Your task to perform on an android device: Open the calendar app, open the side menu, and click the "Day" option Image 0: 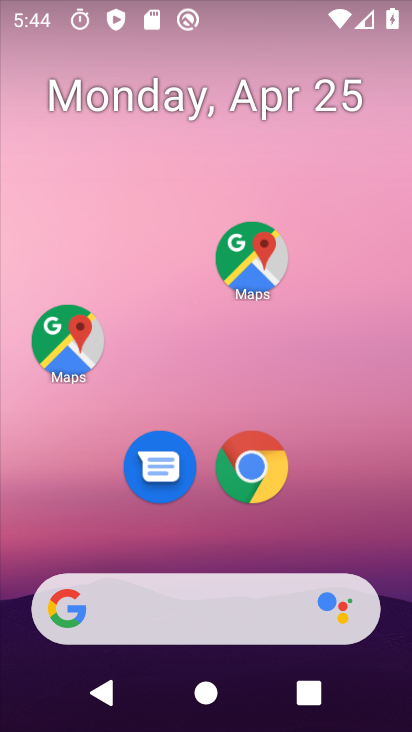
Step 0: drag from (223, 545) to (209, 2)
Your task to perform on an android device: Open the calendar app, open the side menu, and click the "Day" option Image 1: 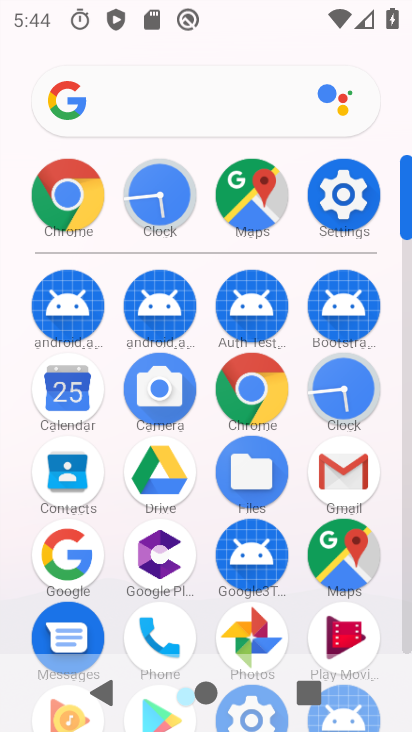
Step 1: click (67, 411)
Your task to perform on an android device: Open the calendar app, open the side menu, and click the "Day" option Image 2: 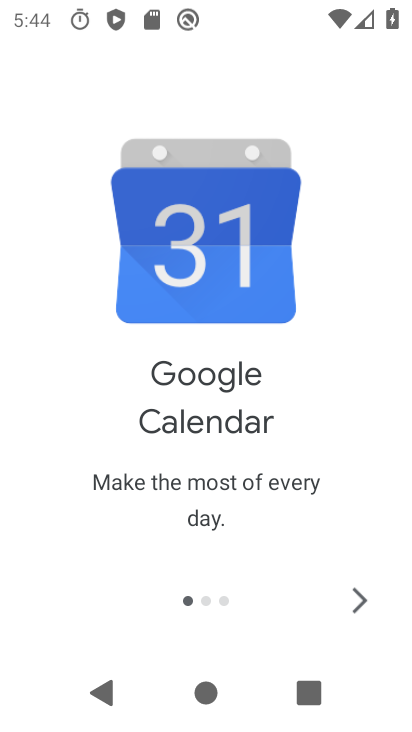
Step 2: click (353, 588)
Your task to perform on an android device: Open the calendar app, open the side menu, and click the "Day" option Image 3: 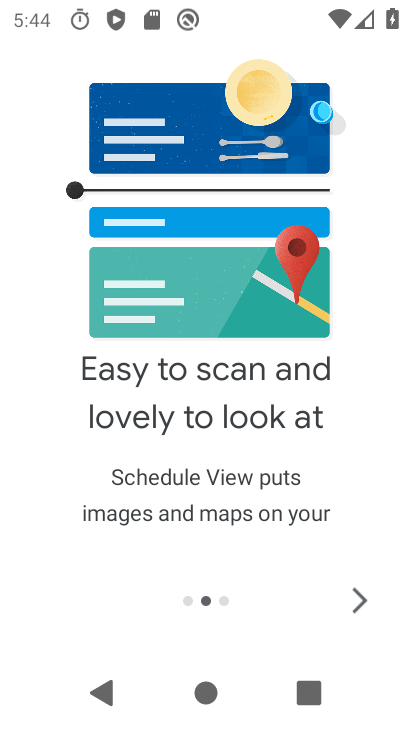
Step 3: click (355, 595)
Your task to perform on an android device: Open the calendar app, open the side menu, and click the "Day" option Image 4: 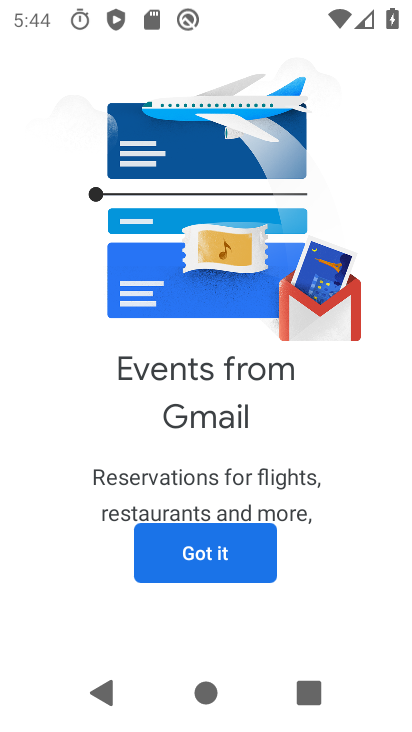
Step 4: click (230, 571)
Your task to perform on an android device: Open the calendar app, open the side menu, and click the "Day" option Image 5: 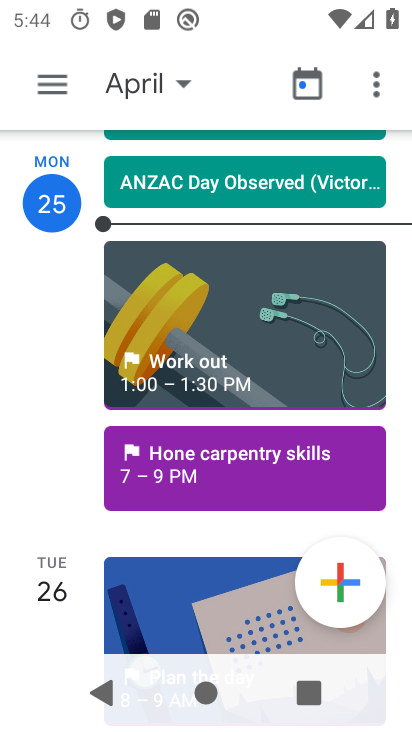
Step 5: click (54, 74)
Your task to perform on an android device: Open the calendar app, open the side menu, and click the "Day" option Image 6: 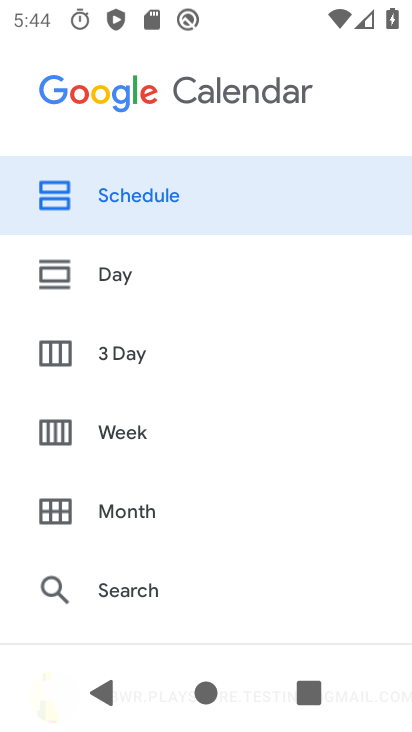
Step 6: click (127, 279)
Your task to perform on an android device: Open the calendar app, open the side menu, and click the "Day" option Image 7: 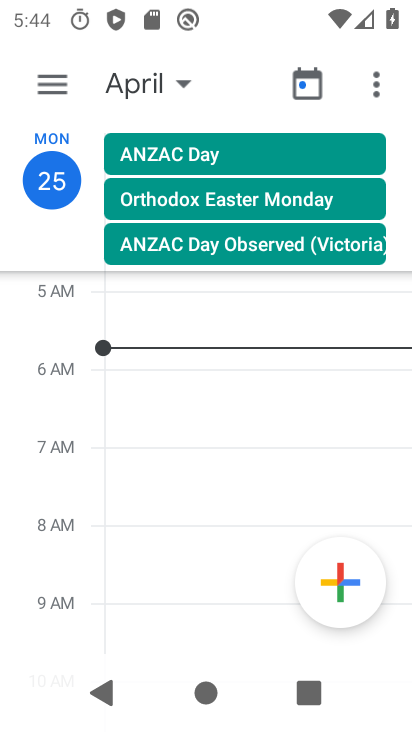
Step 7: task complete